Your task to perform on an android device: search for starred emails in the gmail app Image 0: 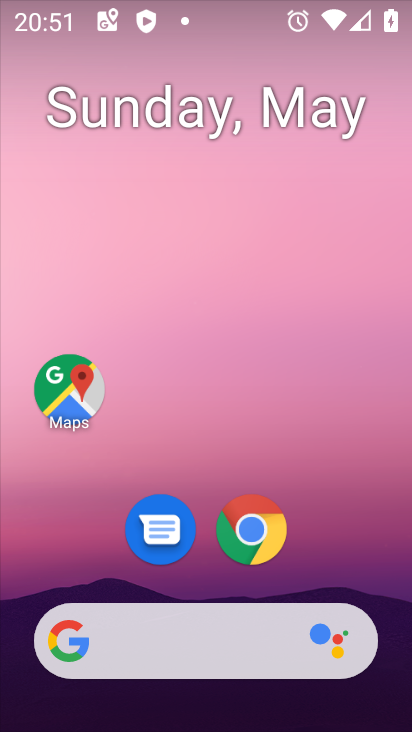
Step 0: press home button
Your task to perform on an android device: search for starred emails in the gmail app Image 1: 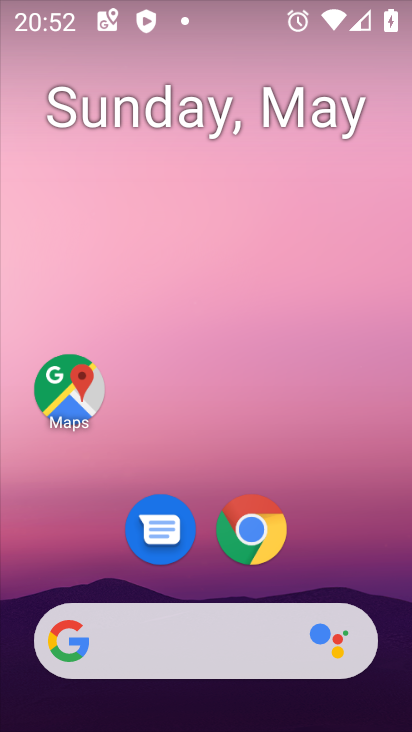
Step 1: drag from (343, 580) to (338, 12)
Your task to perform on an android device: search for starred emails in the gmail app Image 2: 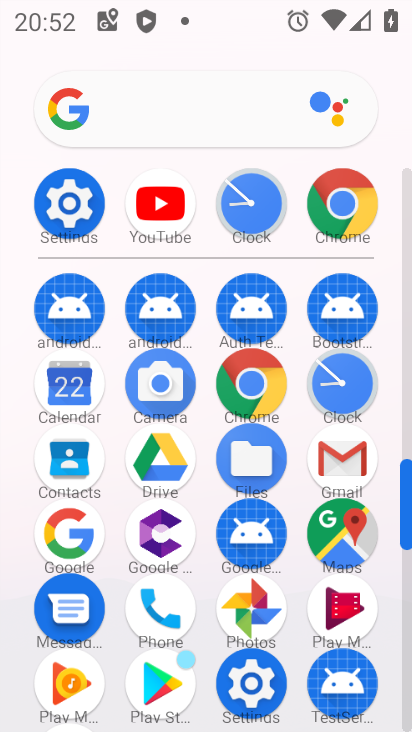
Step 2: click (348, 461)
Your task to perform on an android device: search for starred emails in the gmail app Image 3: 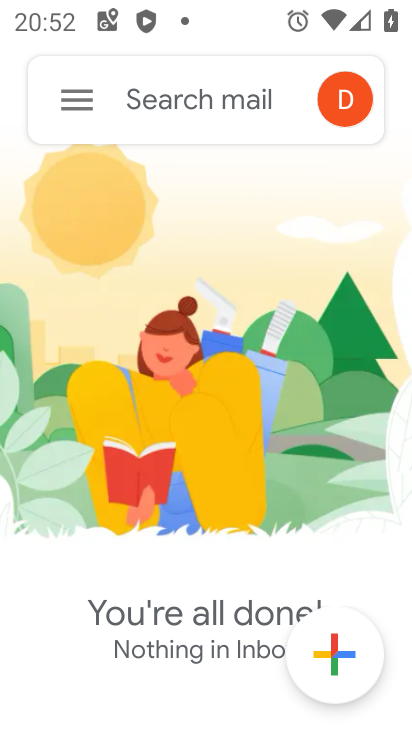
Step 3: click (76, 109)
Your task to perform on an android device: search for starred emails in the gmail app Image 4: 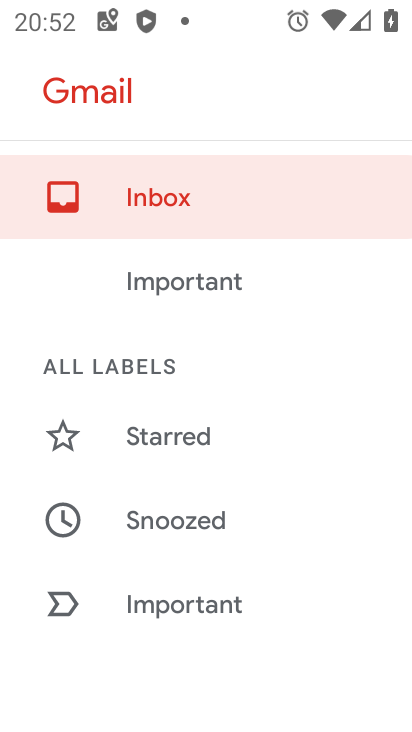
Step 4: click (141, 437)
Your task to perform on an android device: search for starred emails in the gmail app Image 5: 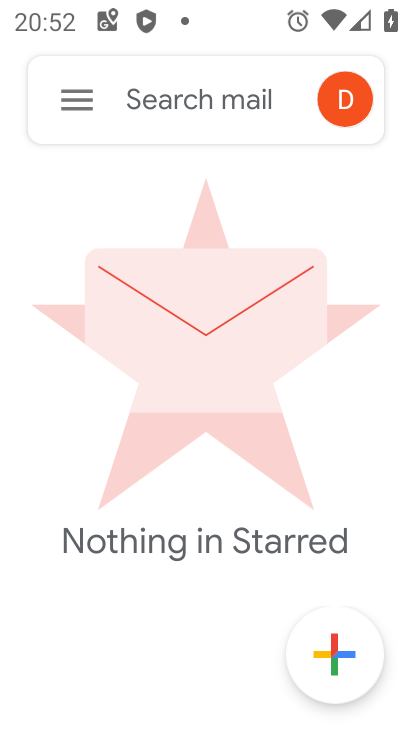
Step 5: task complete